Your task to perform on an android device: Turn on the flashlight Image 0: 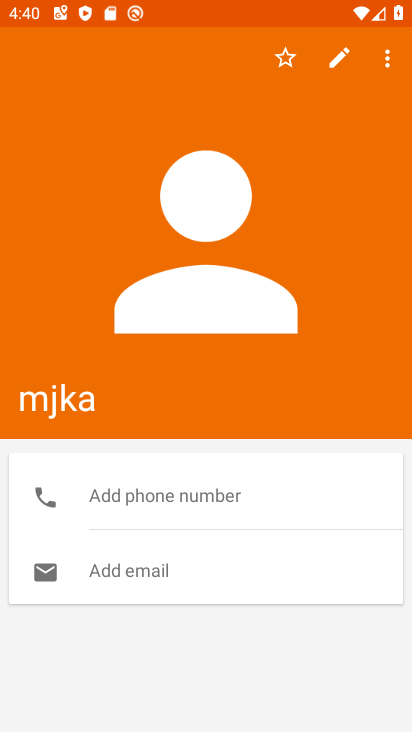
Step 0: drag from (288, 544) to (312, 143)
Your task to perform on an android device: Turn on the flashlight Image 1: 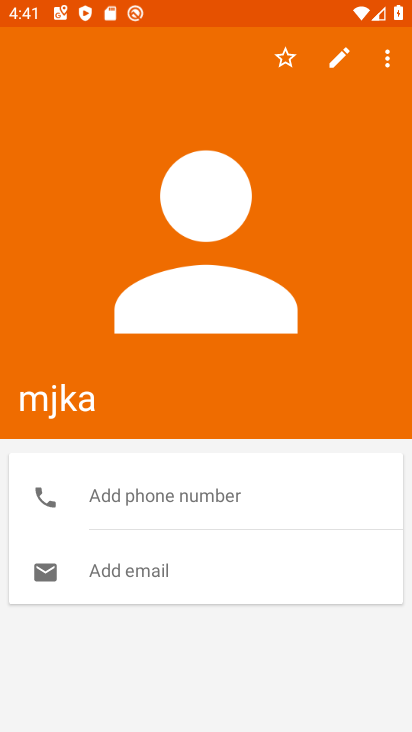
Step 1: click (242, 318)
Your task to perform on an android device: Turn on the flashlight Image 2: 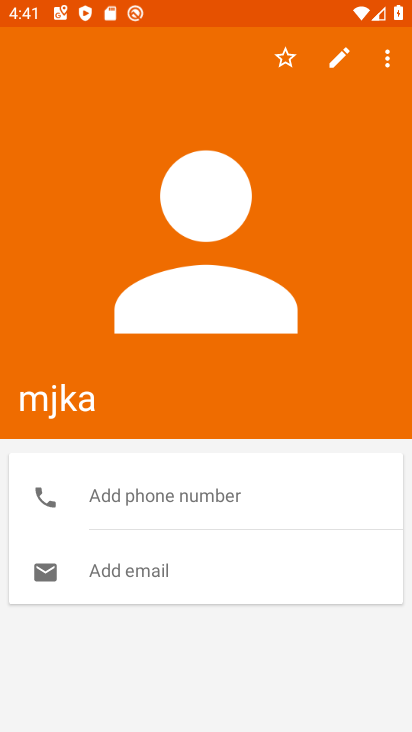
Step 2: press home button
Your task to perform on an android device: Turn on the flashlight Image 3: 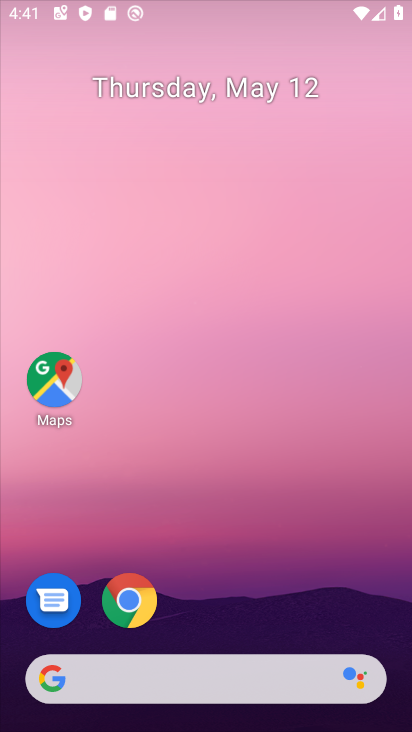
Step 3: drag from (298, 544) to (290, 729)
Your task to perform on an android device: Turn on the flashlight Image 4: 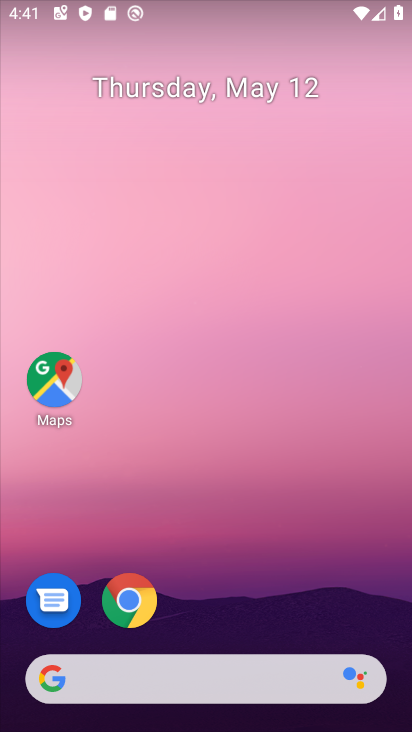
Step 4: drag from (210, 581) to (262, 261)
Your task to perform on an android device: Turn on the flashlight Image 5: 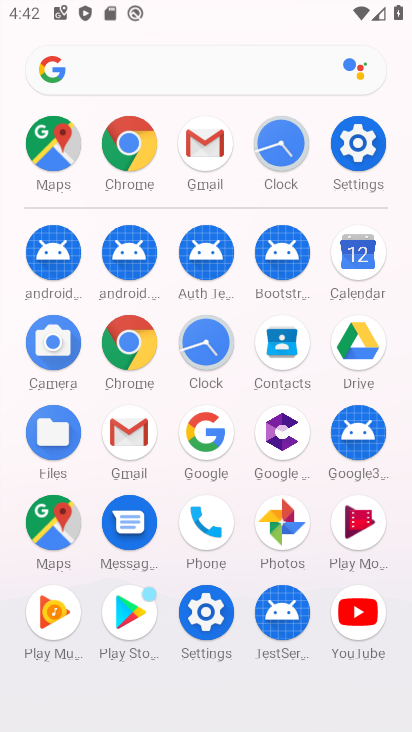
Step 5: click (363, 134)
Your task to perform on an android device: Turn on the flashlight Image 6: 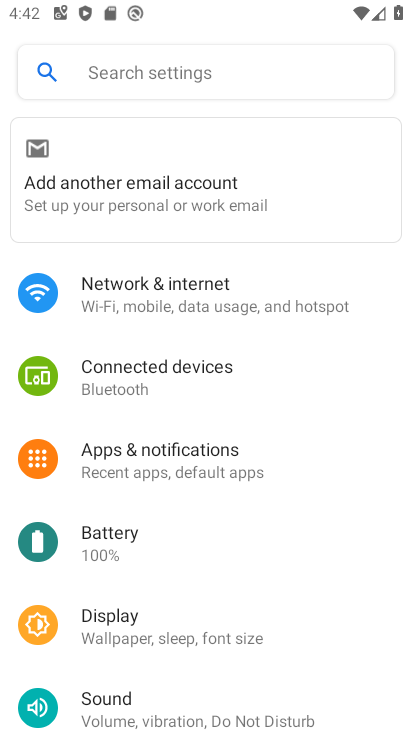
Step 6: click (166, 76)
Your task to perform on an android device: Turn on the flashlight Image 7: 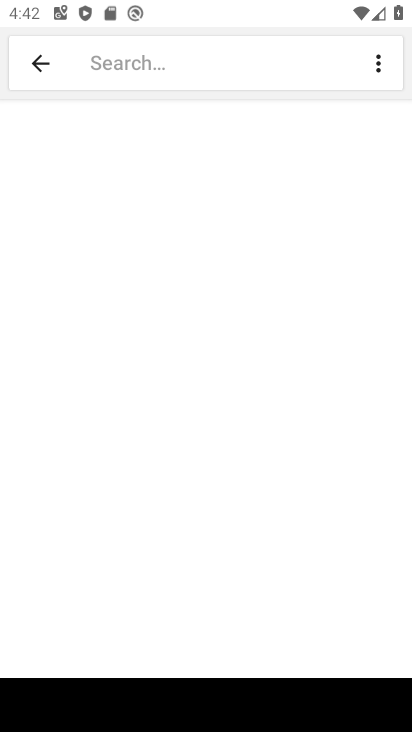
Step 7: type "flashlight"
Your task to perform on an android device: Turn on the flashlight Image 8: 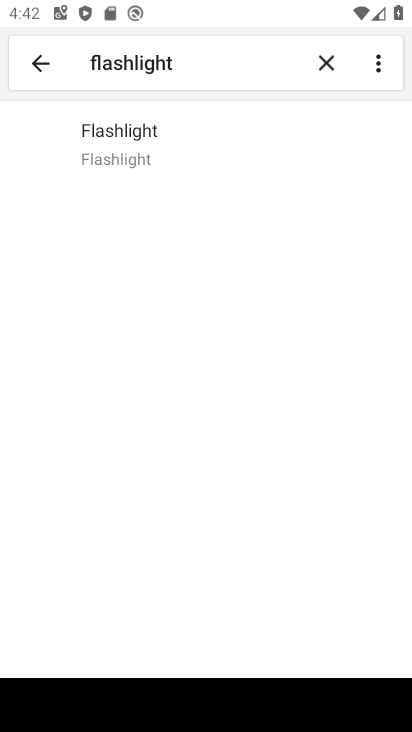
Step 8: click (159, 157)
Your task to perform on an android device: Turn on the flashlight Image 9: 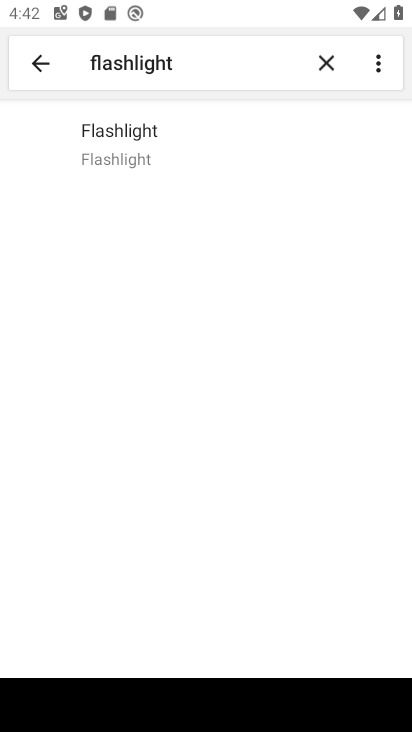
Step 9: task complete